Your task to perform on an android device: uninstall "Google Chrome" Image 0: 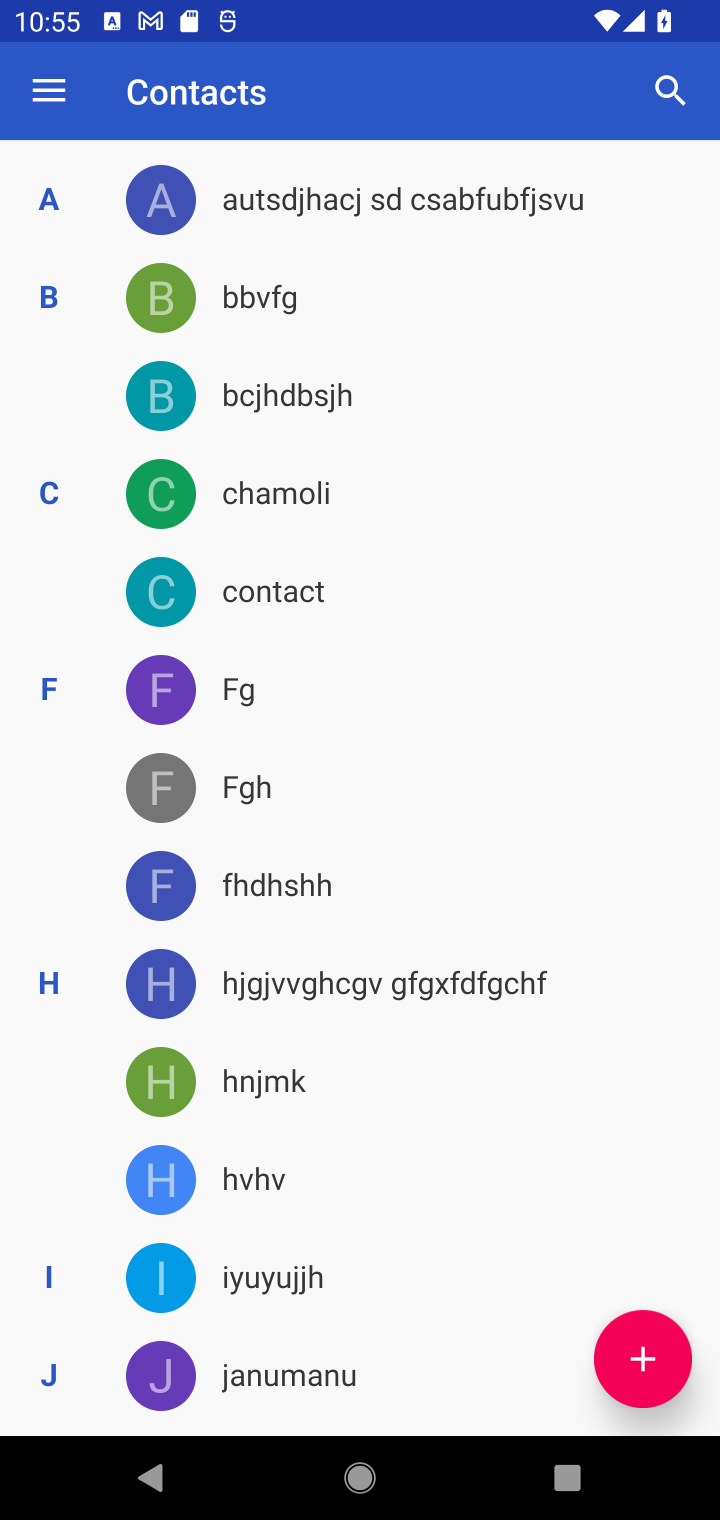
Step 0: press home button
Your task to perform on an android device: uninstall "Google Chrome" Image 1: 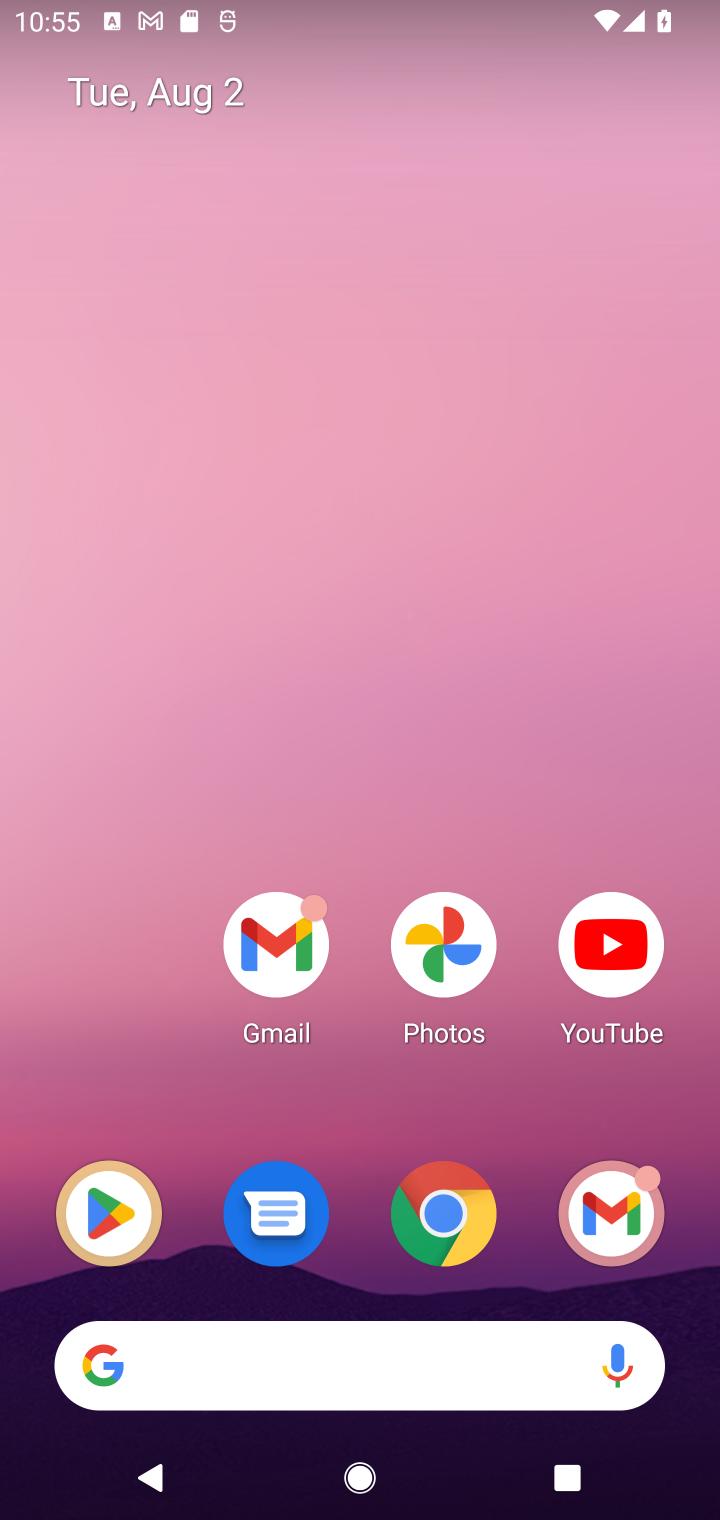
Step 1: click (111, 1215)
Your task to perform on an android device: uninstall "Google Chrome" Image 2: 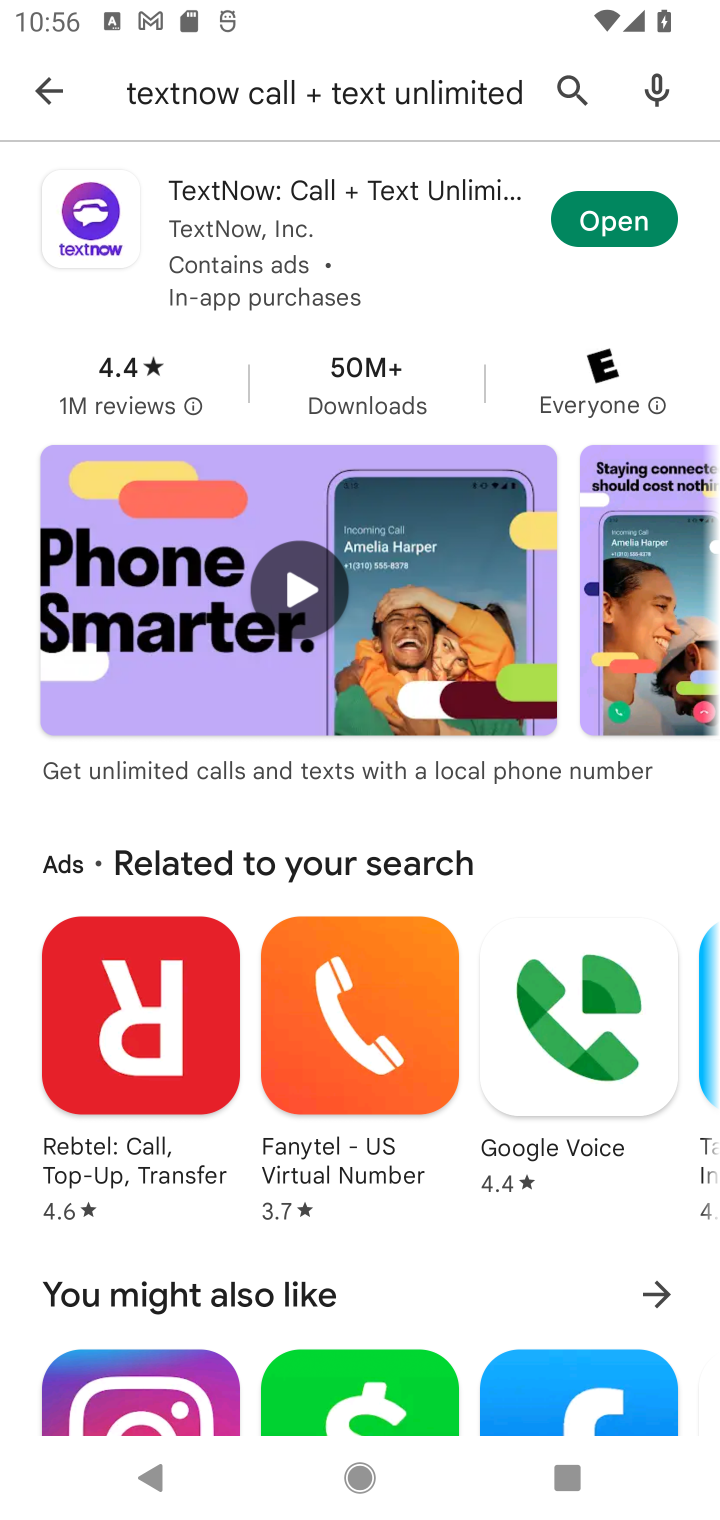
Step 2: click (52, 74)
Your task to perform on an android device: uninstall "Google Chrome" Image 3: 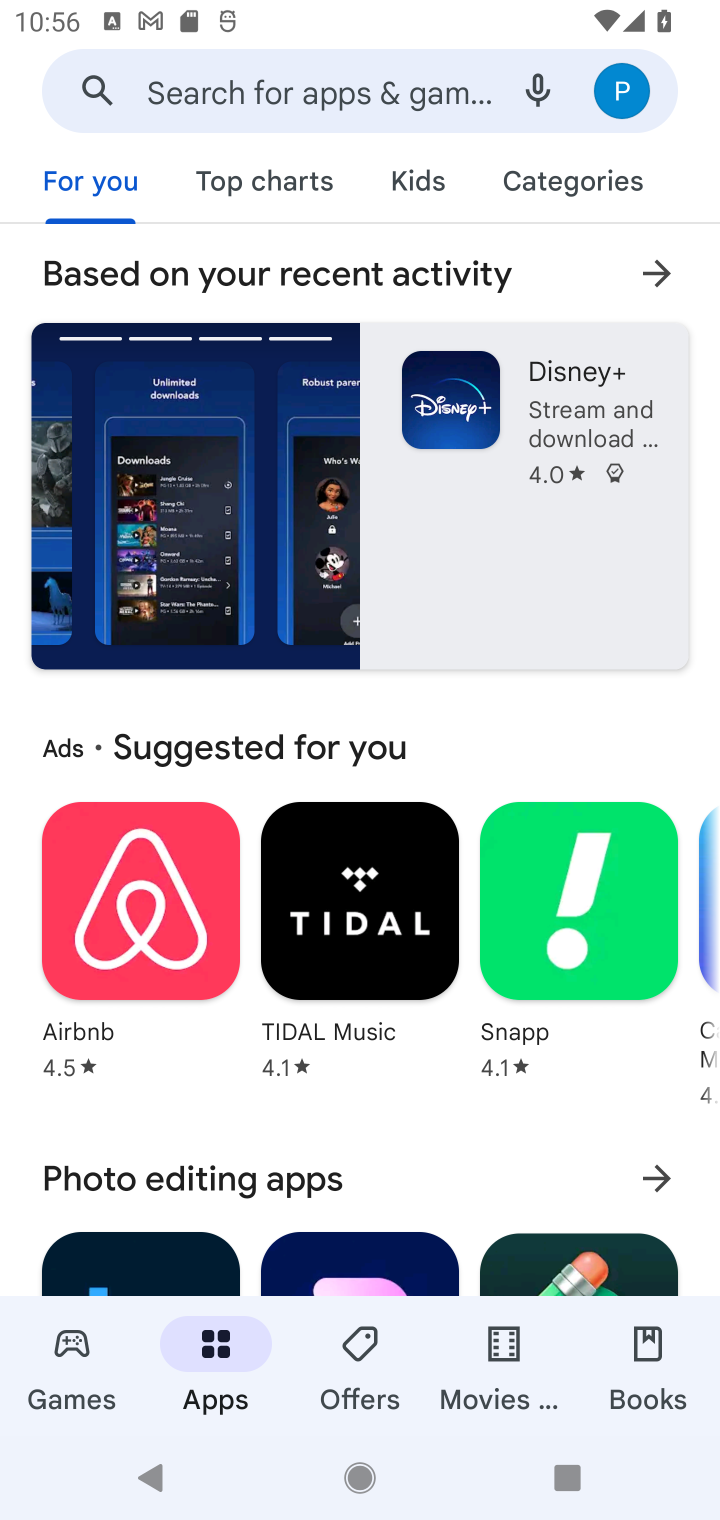
Step 3: type "Google Chrome"
Your task to perform on an android device: uninstall "Google Chrome" Image 4: 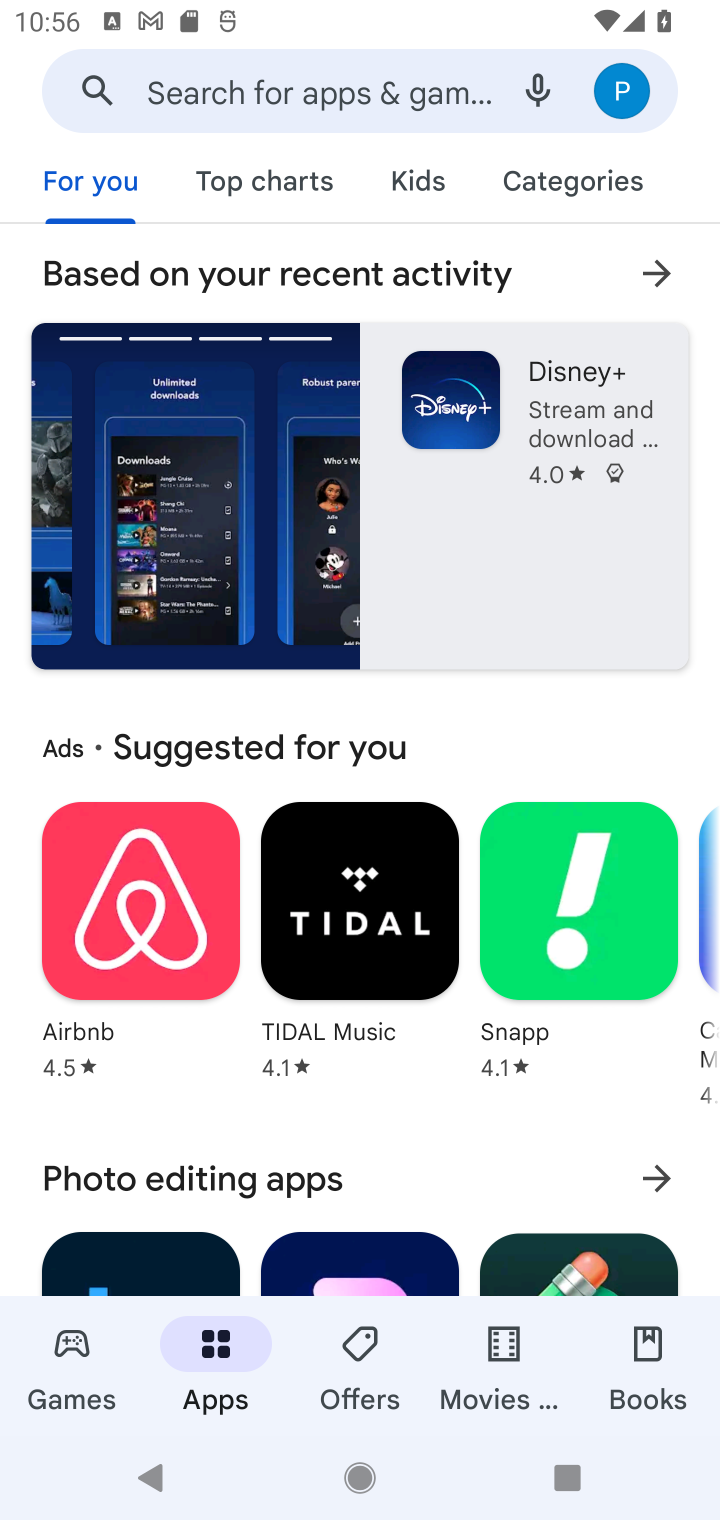
Step 4: click (182, 84)
Your task to perform on an android device: uninstall "Google Chrome" Image 5: 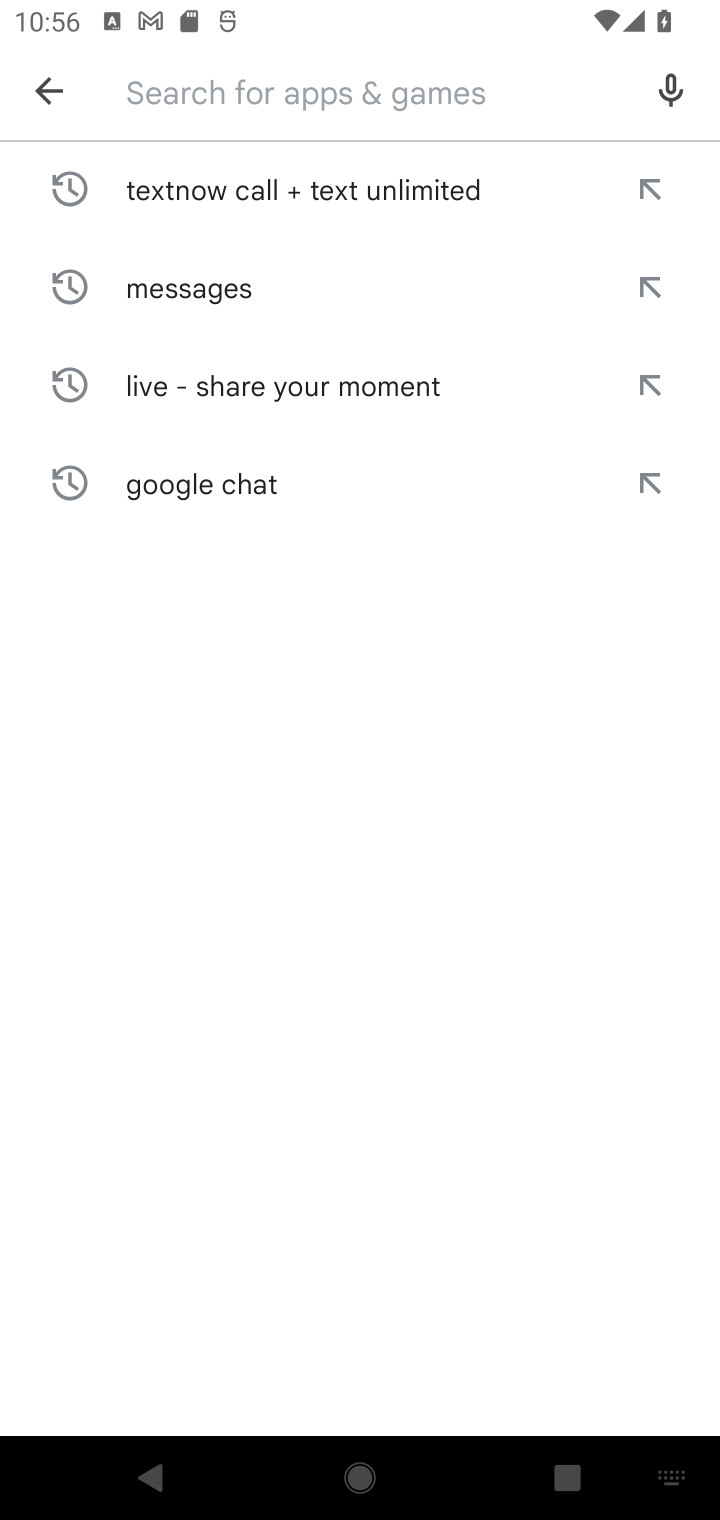
Step 5: type "Google Chrome"
Your task to perform on an android device: uninstall "Google Chrome" Image 6: 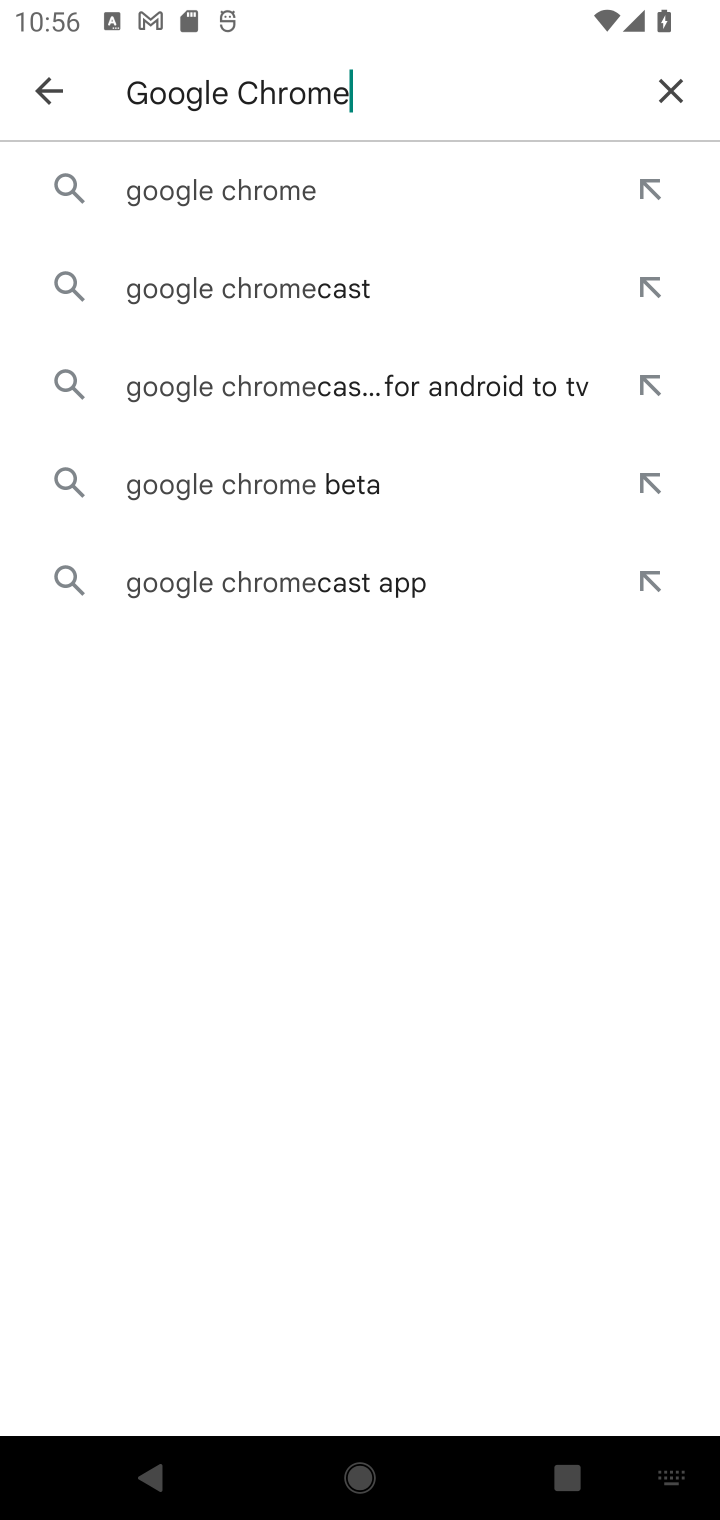
Step 6: click (299, 203)
Your task to perform on an android device: uninstall "Google Chrome" Image 7: 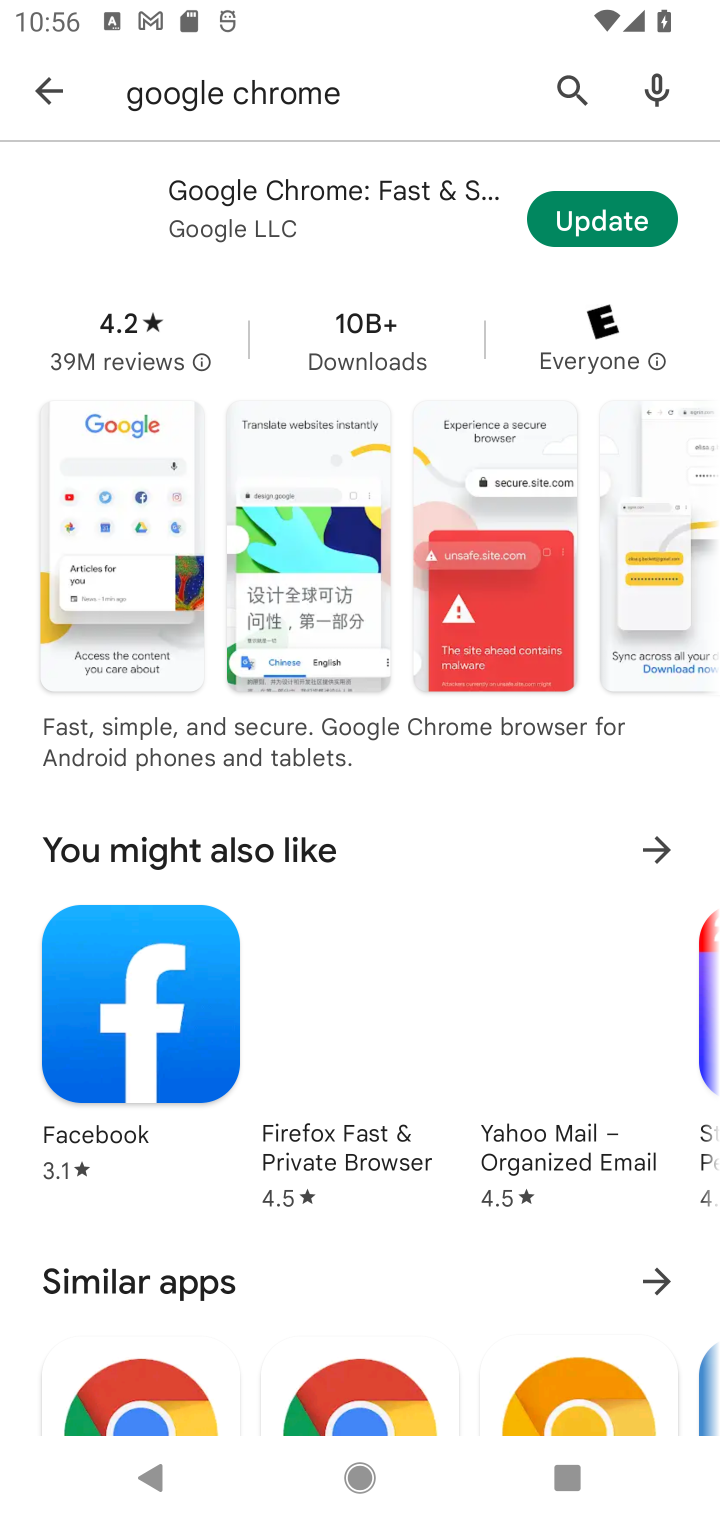
Step 7: click (592, 222)
Your task to perform on an android device: uninstall "Google Chrome" Image 8: 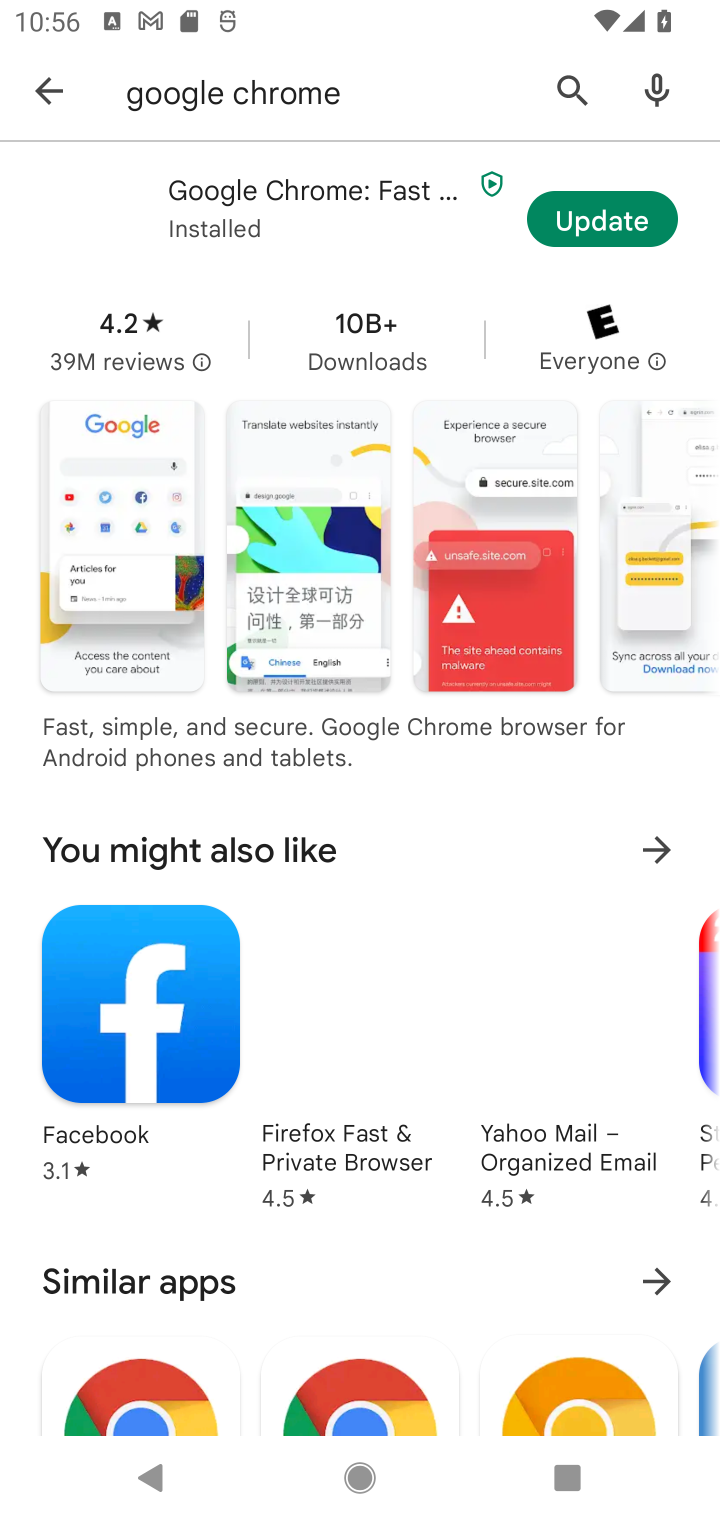
Step 8: click (592, 222)
Your task to perform on an android device: uninstall "Google Chrome" Image 9: 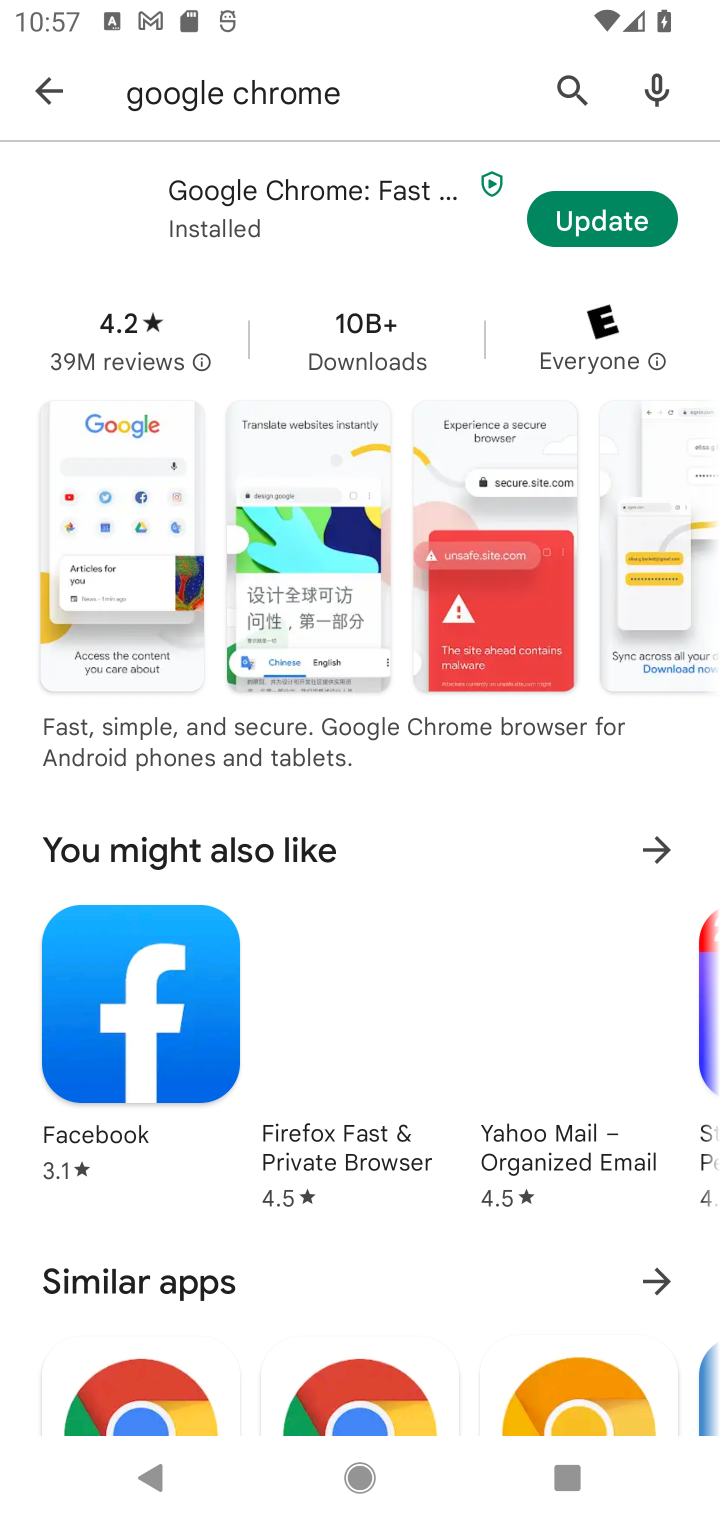
Step 9: click (595, 237)
Your task to perform on an android device: uninstall "Google Chrome" Image 10: 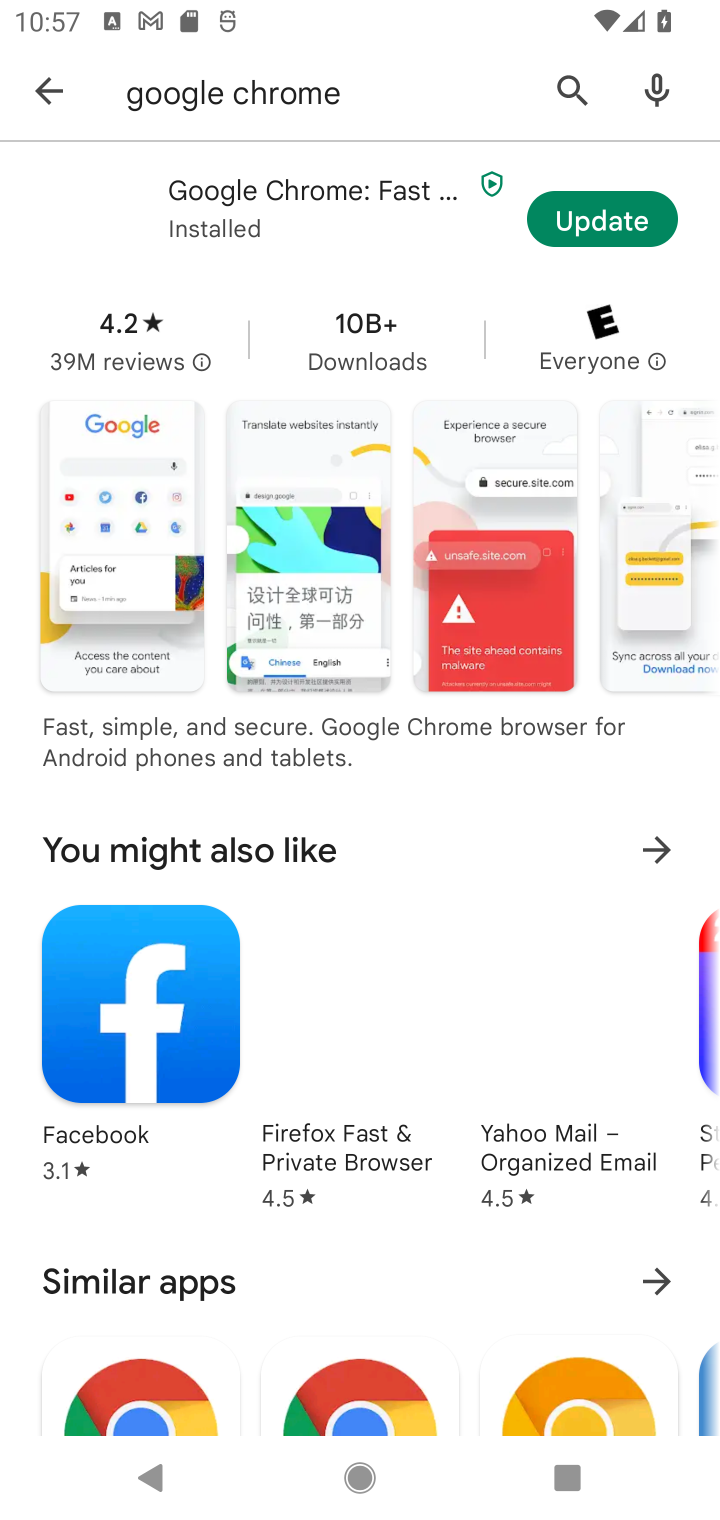
Step 10: click (210, 238)
Your task to perform on an android device: uninstall "Google Chrome" Image 11: 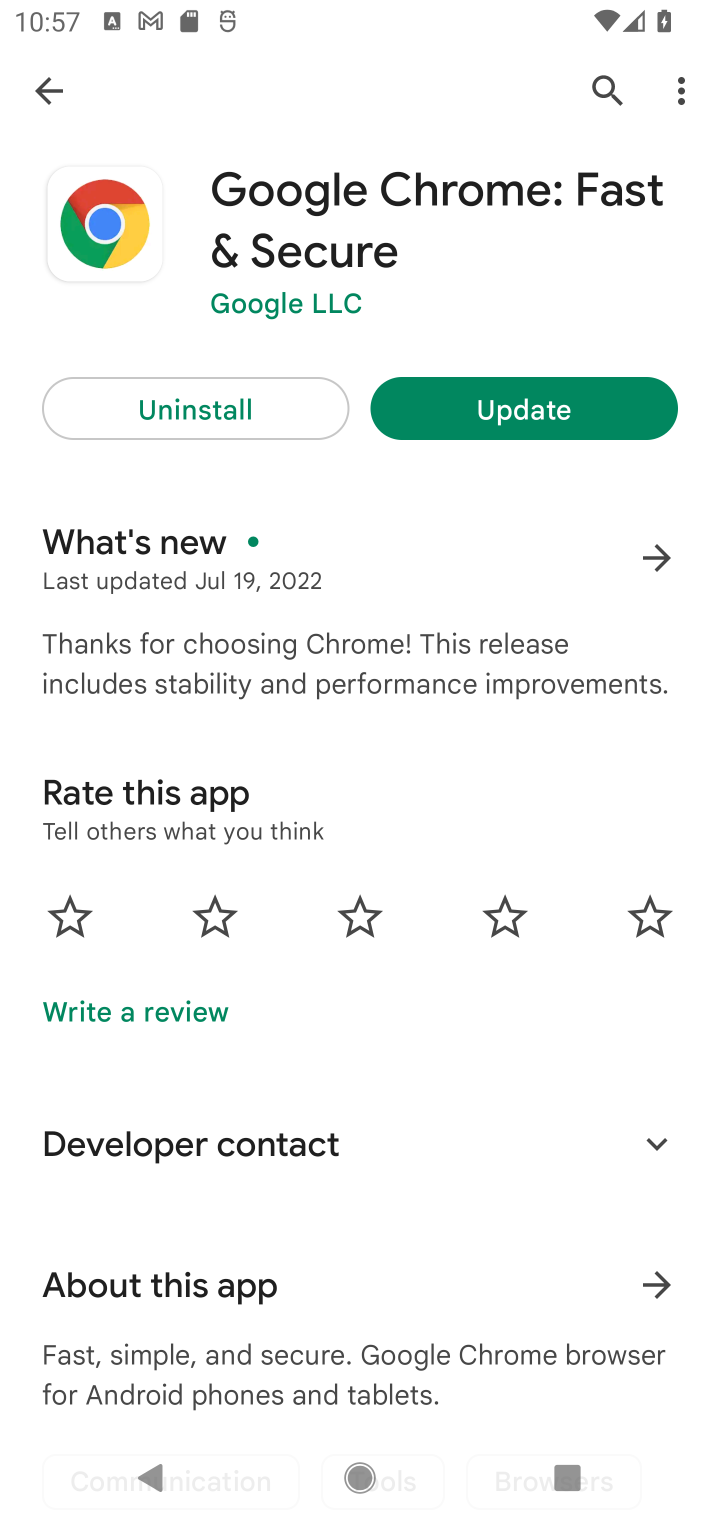
Step 11: click (189, 408)
Your task to perform on an android device: uninstall "Google Chrome" Image 12: 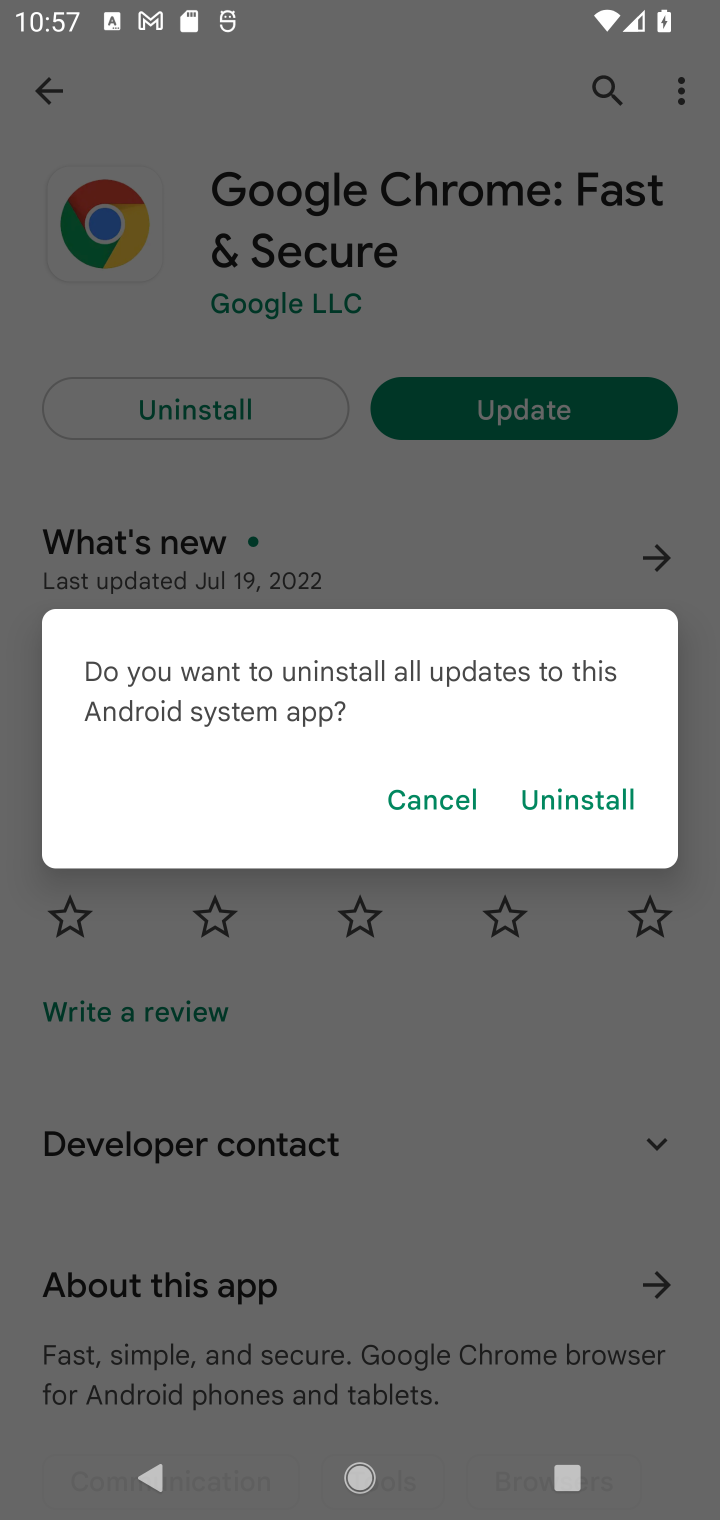
Step 12: click (558, 817)
Your task to perform on an android device: uninstall "Google Chrome" Image 13: 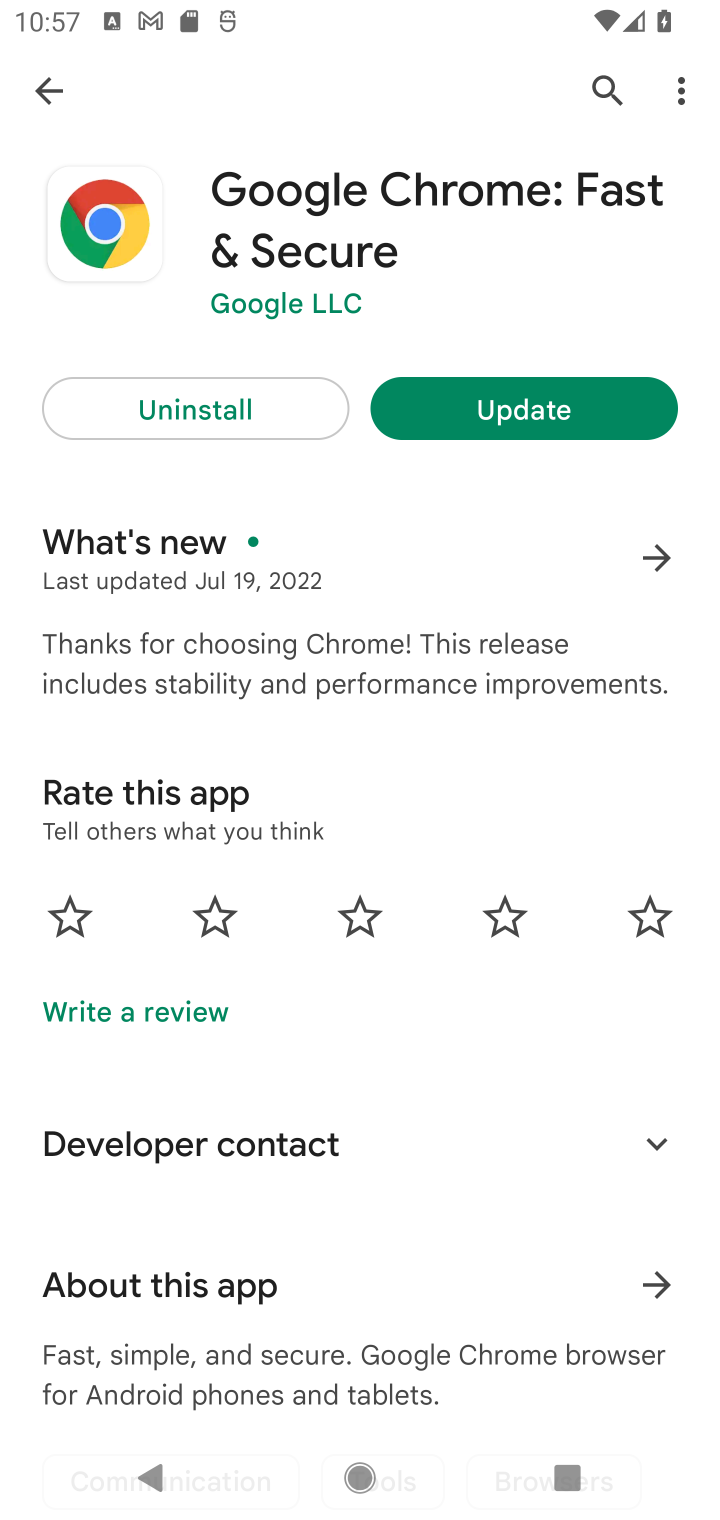
Step 13: task complete